Your task to perform on an android device: all mails in gmail Image 0: 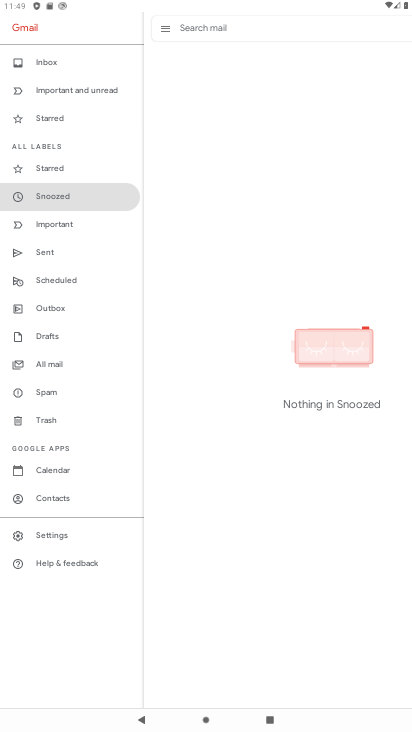
Step 0: click (55, 372)
Your task to perform on an android device: all mails in gmail Image 1: 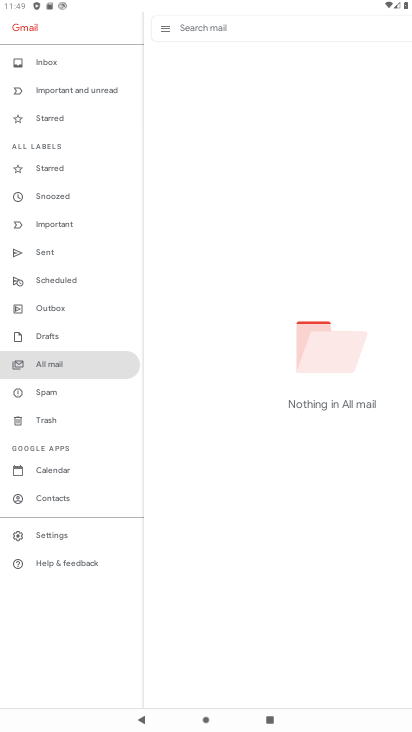
Step 1: task complete